Your task to perform on an android device: Go to Google maps Image 0: 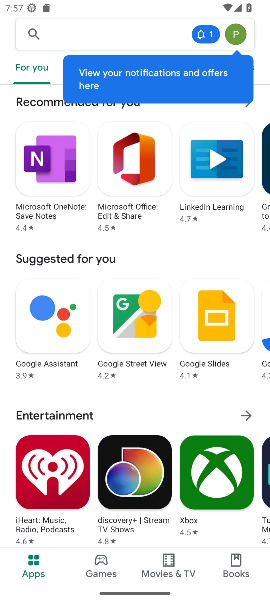
Step 0: press home button
Your task to perform on an android device: Go to Google maps Image 1: 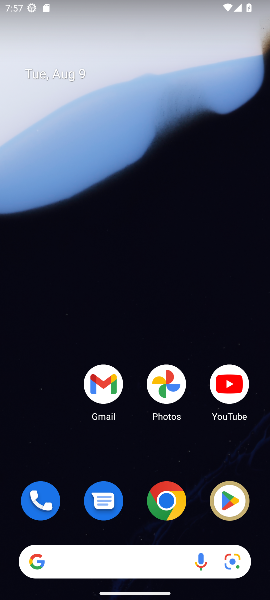
Step 1: drag from (132, 444) to (175, 17)
Your task to perform on an android device: Go to Google maps Image 2: 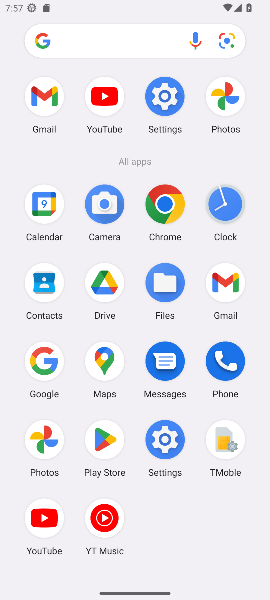
Step 2: click (104, 370)
Your task to perform on an android device: Go to Google maps Image 3: 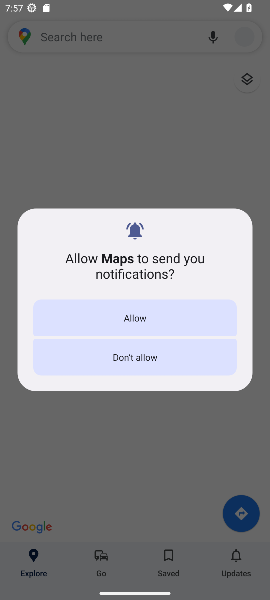
Step 3: click (161, 308)
Your task to perform on an android device: Go to Google maps Image 4: 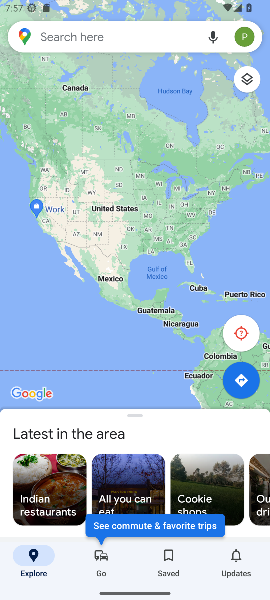
Step 4: task complete